Your task to perform on an android device: Go to Reddit.com Image 0: 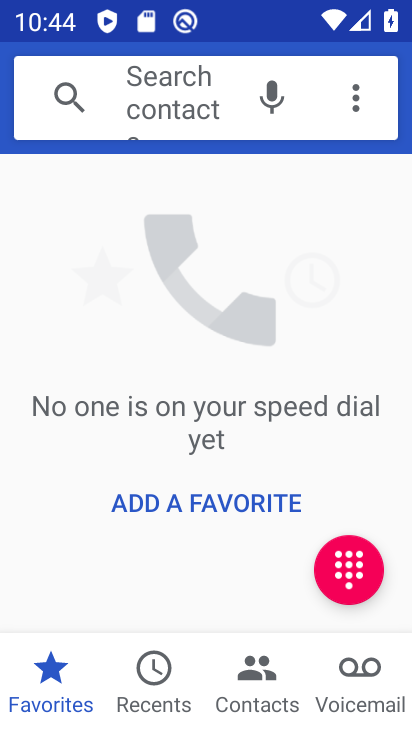
Step 0: press home button
Your task to perform on an android device: Go to Reddit.com Image 1: 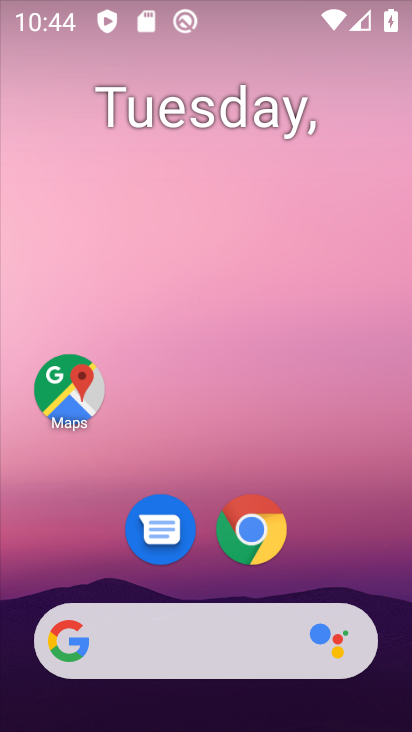
Step 1: click (173, 628)
Your task to perform on an android device: Go to Reddit.com Image 2: 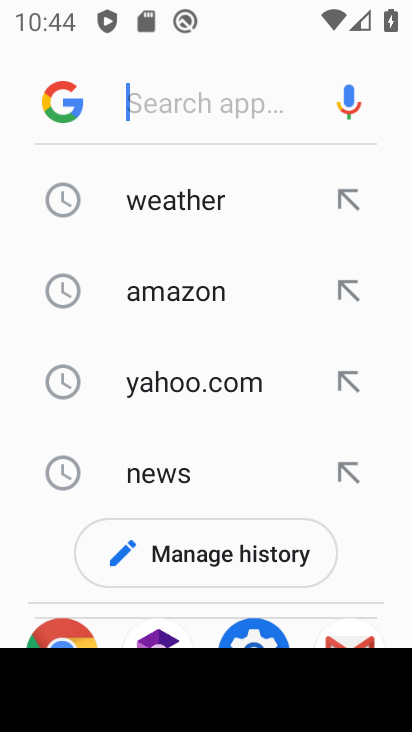
Step 2: type "Reddit.com"
Your task to perform on an android device: Go to Reddit.com Image 3: 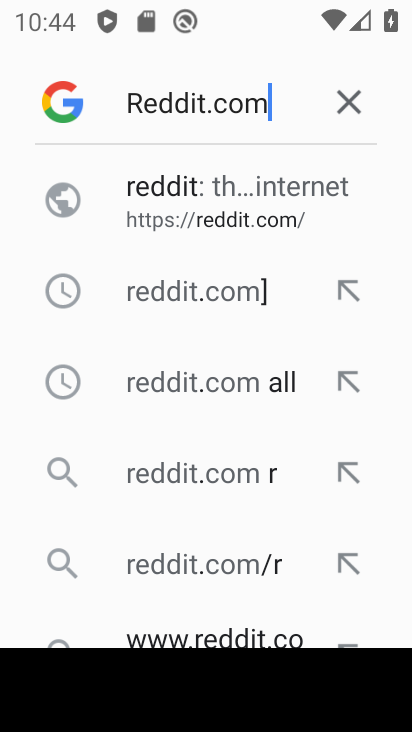
Step 3: click (248, 190)
Your task to perform on an android device: Go to Reddit.com Image 4: 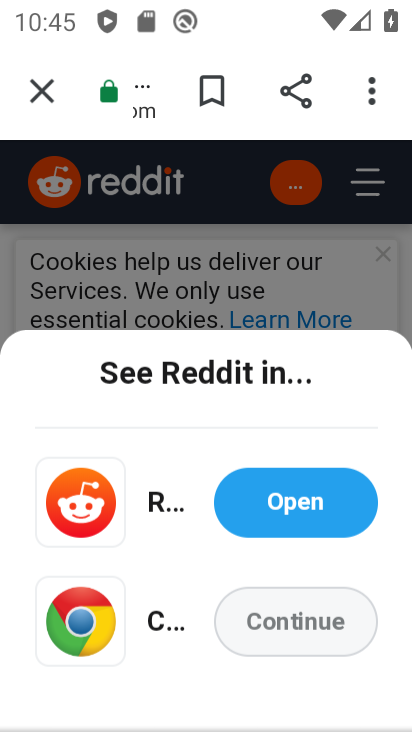
Step 4: task complete